Your task to perform on an android device: turn off data saver in the chrome app Image 0: 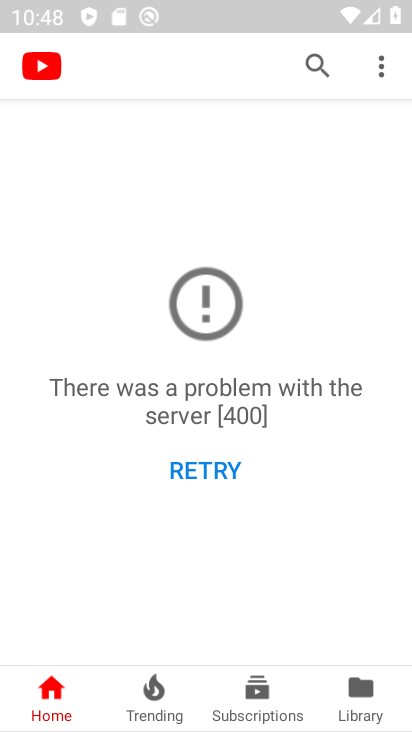
Step 0: press home button
Your task to perform on an android device: turn off data saver in the chrome app Image 1: 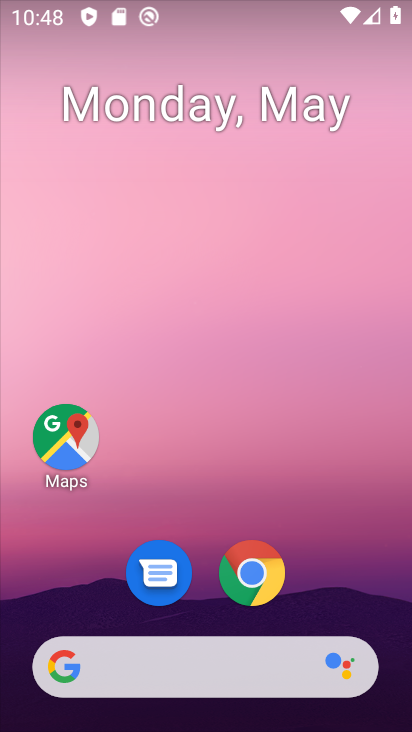
Step 1: click (239, 578)
Your task to perform on an android device: turn off data saver in the chrome app Image 2: 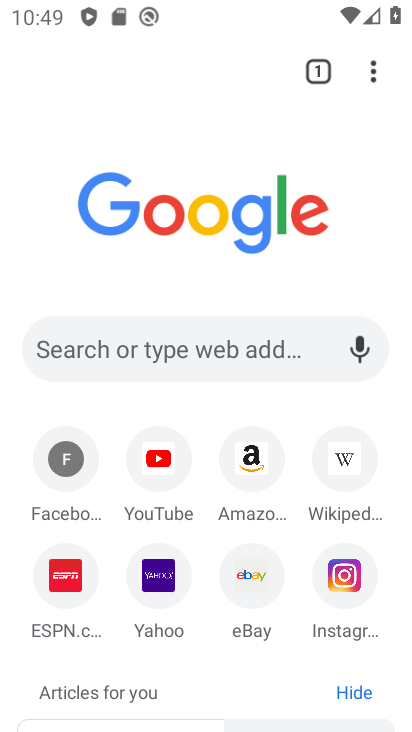
Step 2: click (377, 72)
Your task to perform on an android device: turn off data saver in the chrome app Image 3: 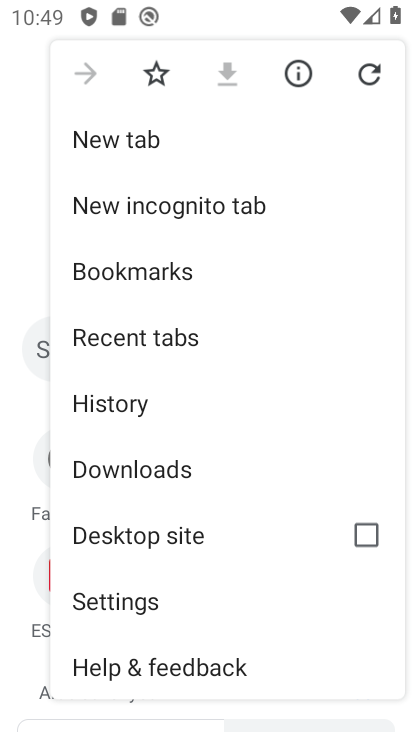
Step 3: click (132, 591)
Your task to perform on an android device: turn off data saver in the chrome app Image 4: 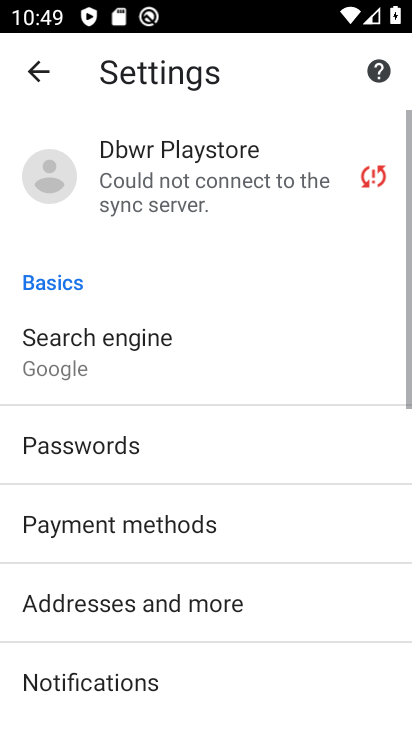
Step 4: drag from (143, 662) to (176, 156)
Your task to perform on an android device: turn off data saver in the chrome app Image 5: 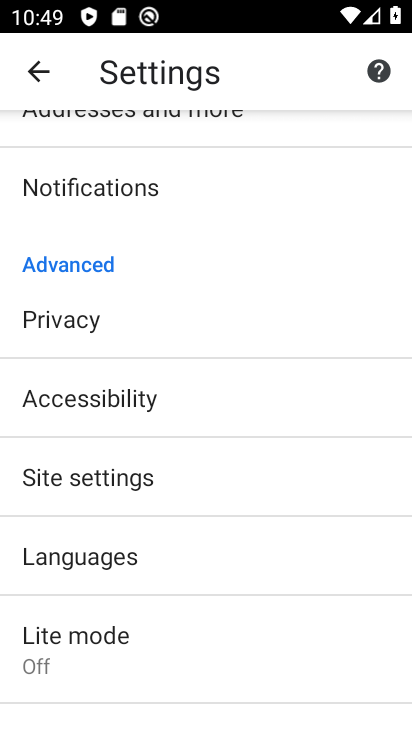
Step 5: click (75, 661)
Your task to perform on an android device: turn off data saver in the chrome app Image 6: 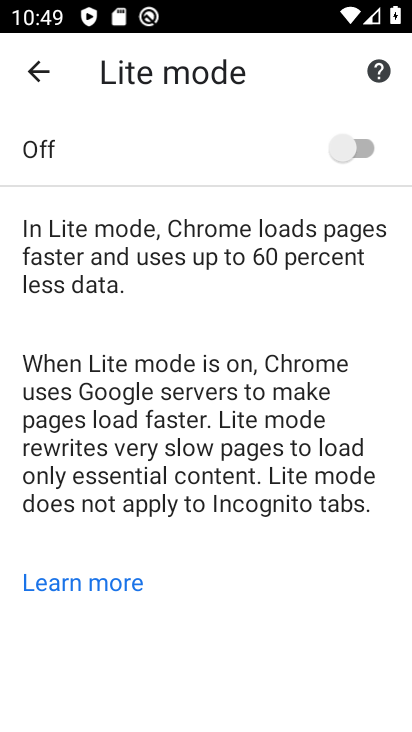
Step 6: task complete